Your task to perform on an android device: change alarm snooze length Image 0: 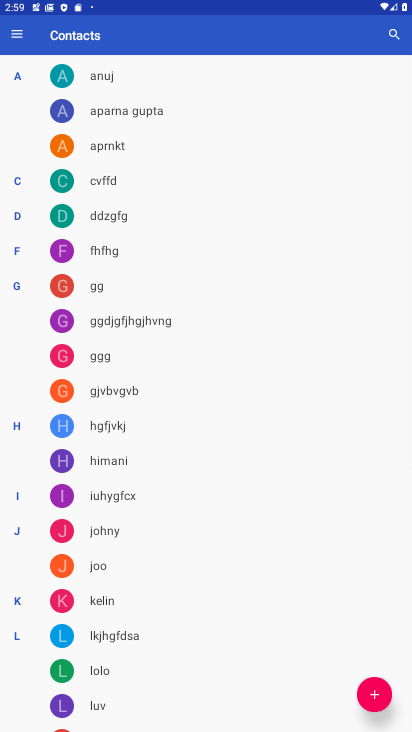
Step 0: press home button
Your task to perform on an android device: change alarm snooze length Image 1: 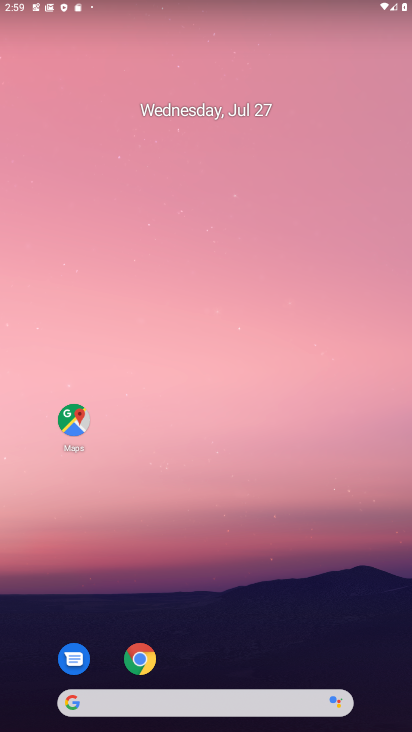
Step 1: drag from (161, 688) to (191, 284)
Your task to perform on an android device: change alarm snooze length Image 2: 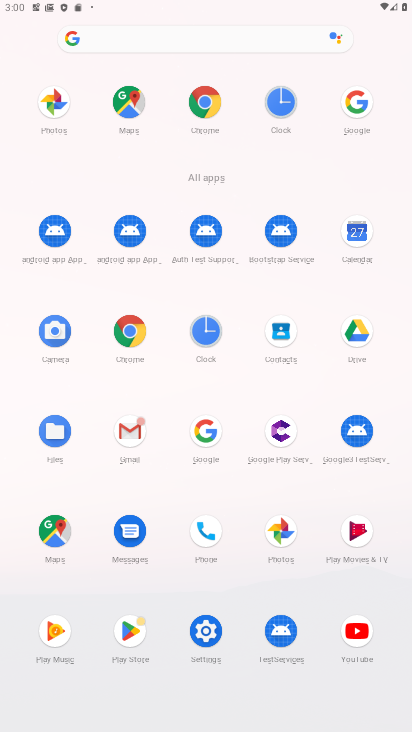
Step 2: click (206, 341)
Your task to perform on an android device: change alarm snooze length Image 3: 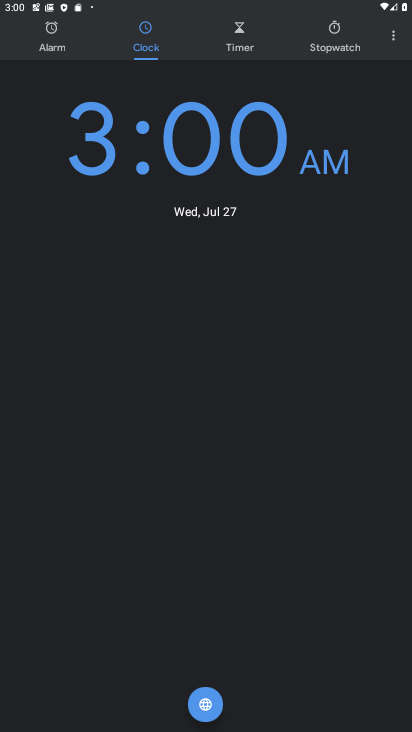
Step 3: click (56, 43)
Your task to perform on an android device: change alarm snooze length Image 4: 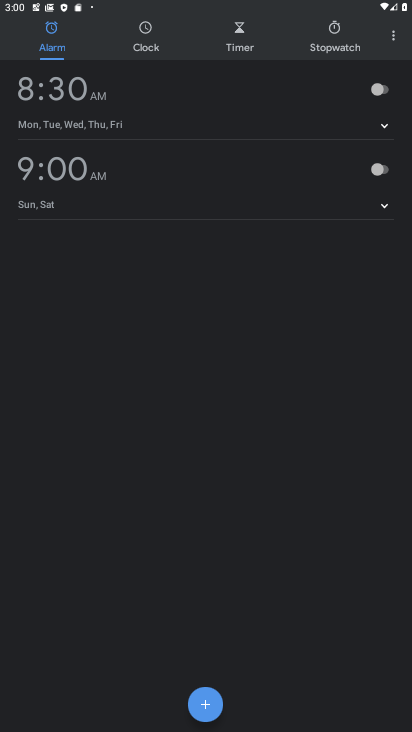
Step 4: click (389, 36)
Your task to perform on an android device: change alarm snooze length Image 5: 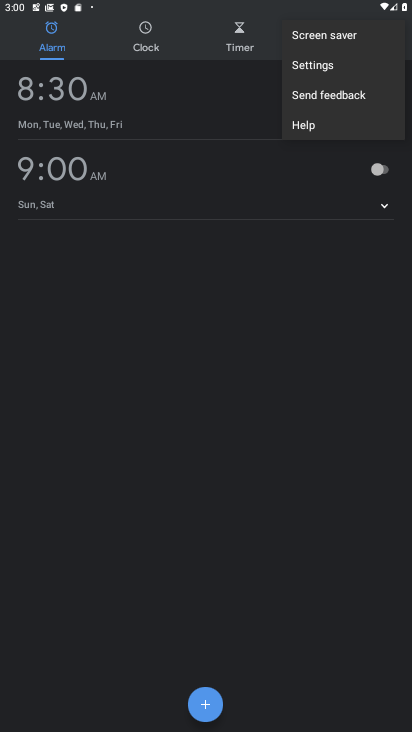
Step 5: click (320, 65)
Your task to perform on an android device: change alarm snooze length Image 6: 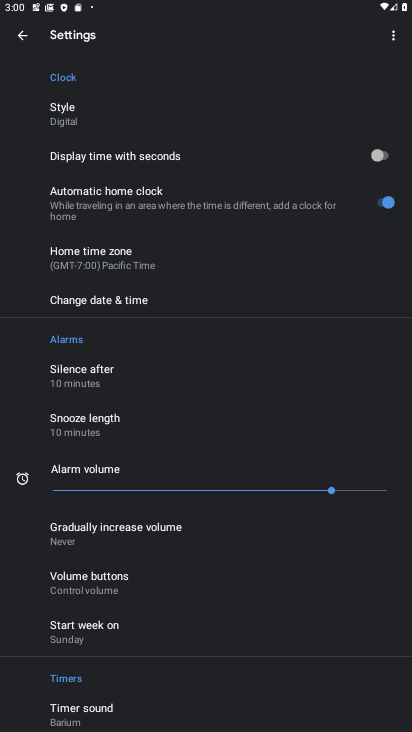
Step 6: click (84, 420)
Your task to perform on an android device: change alarm snooze length Image 7: 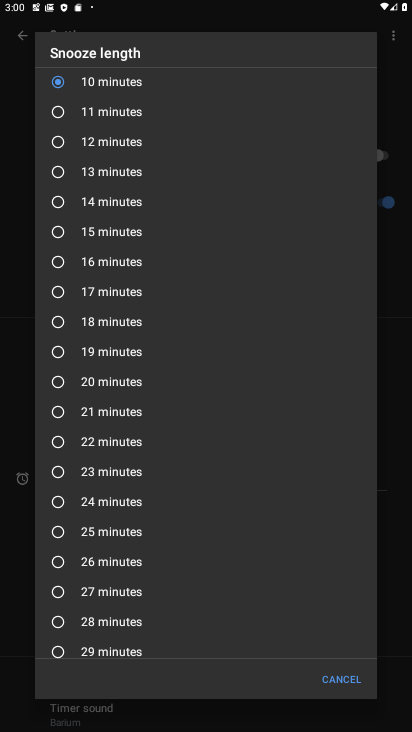
Step 7: click (92, 167)
Your task to perform on an android device: change alarm snooze length Image 8: 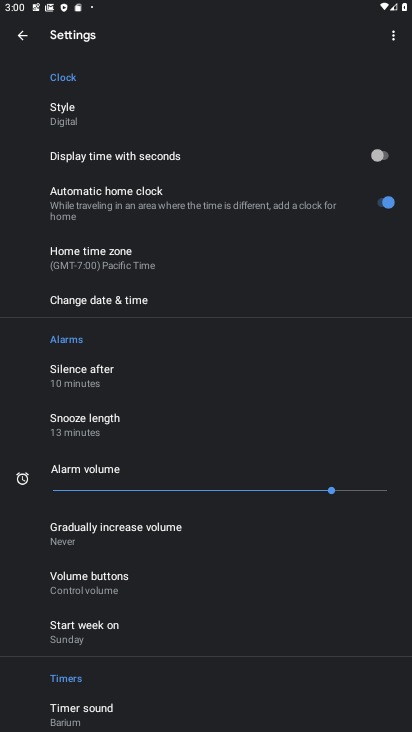
Step 8: task complete